Your task to perform on an android device: turn on bluetooth scan Image 0: 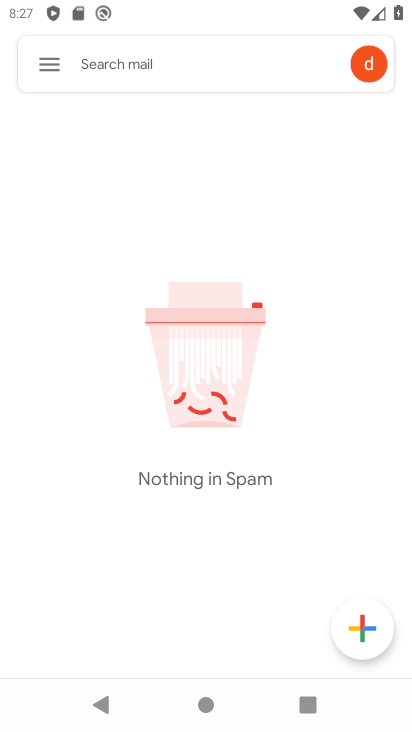
Step 0: press home button
Your task to perform on an android device: turn on bluetooth scan Image 1: 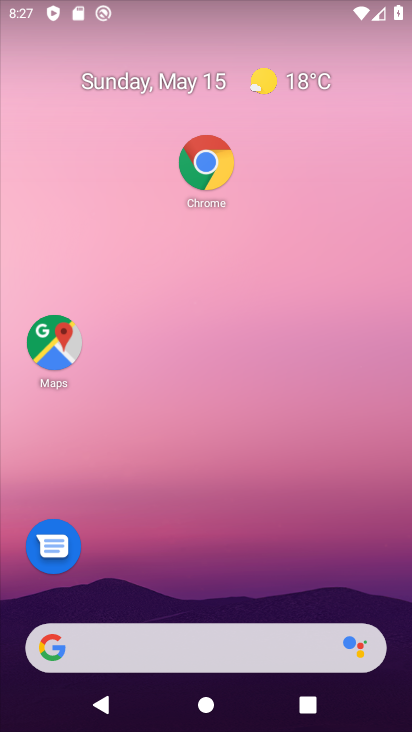
Step 1: click (219, 157)
Your task to perform on an android device: turn on bluetooth scan Image 2: 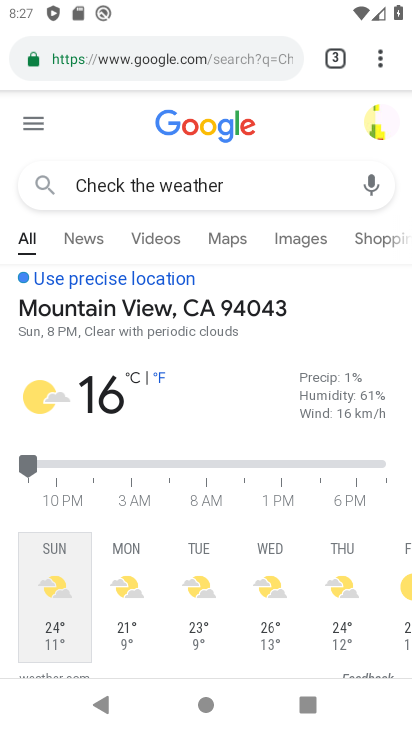
Step 2: click (364, 53)
Your task to perform on an android device: turn on bluetooth scan Image 3: 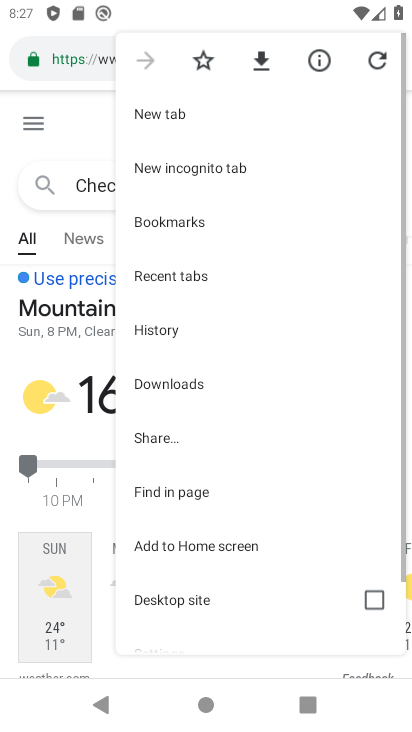
Step 3: press home button
Your task to perform on an android device: turn on bluetooth scan Image 4: 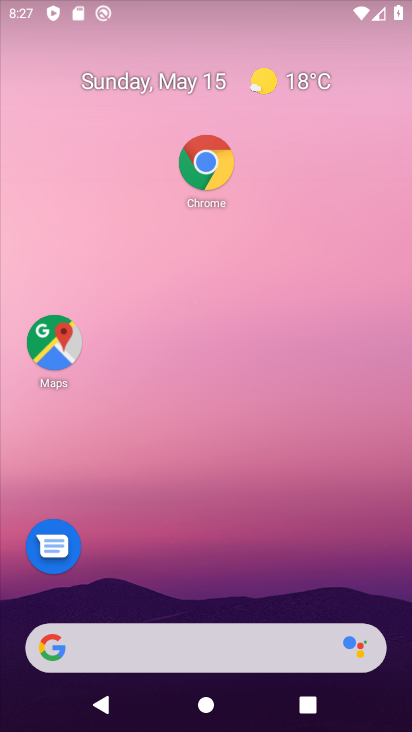
Step 4: drag from (237, 481) to (247, 155)
Your task to perform on an android device: turn on bluetooth scan Image 5: 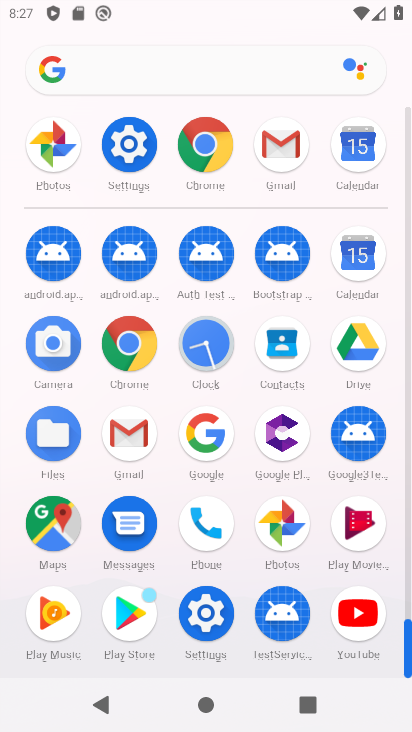
Step 5: click (124, 136)
Your task to perform on an android device: turn on bluetooth scan Image 6: 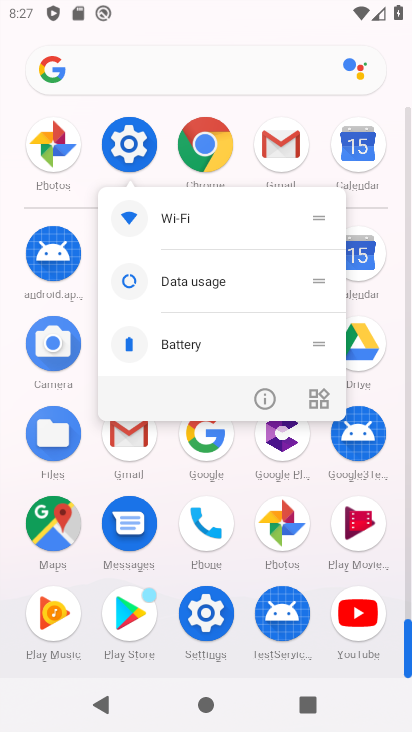
Step 6: click (132, 147)
Your task to perform on an android device: turn on bluetooth scan Image 7: 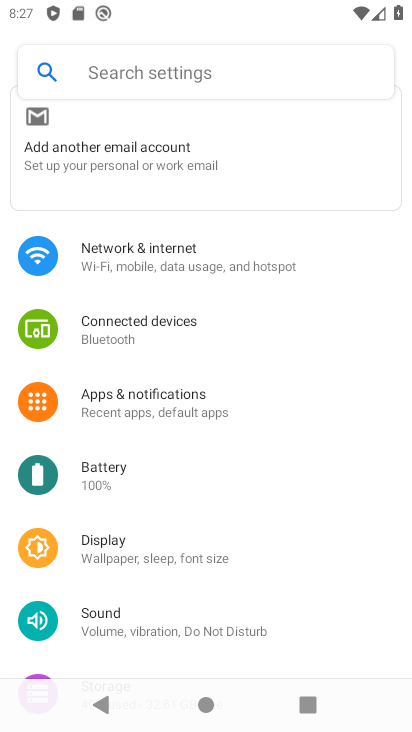
Step 7: click (239, 76)
Your task to perform on an android device: turn on bluetooth scan Image 8: 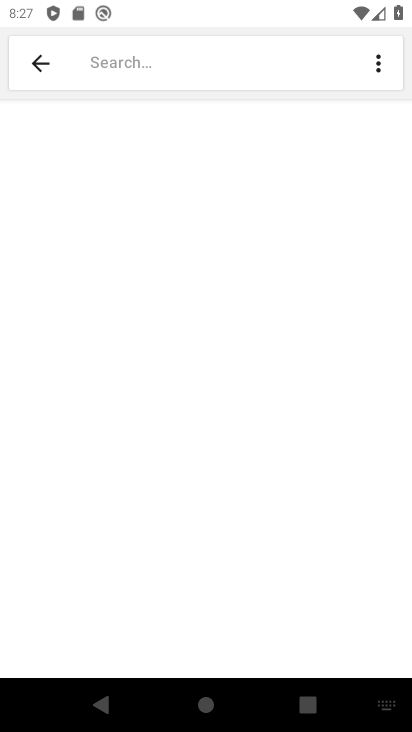
Step 8: type "bluetooth scan"
Your task to perform on an android device: turn on bluetooth scan Image 9: 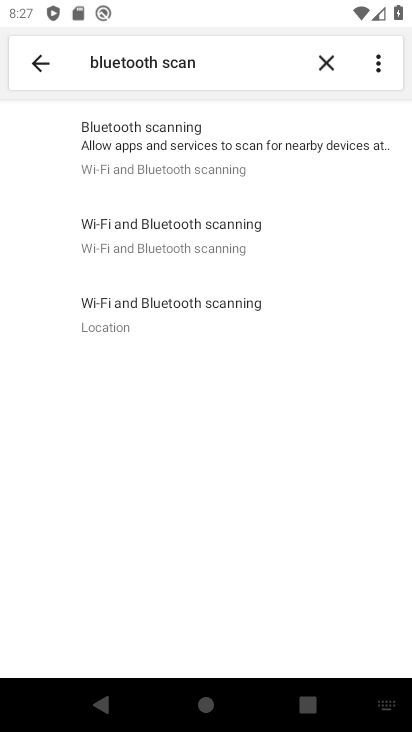
Step 9: click (303, 141)
Your task to perform on an android device: turn on bluetooth scan Image 10: 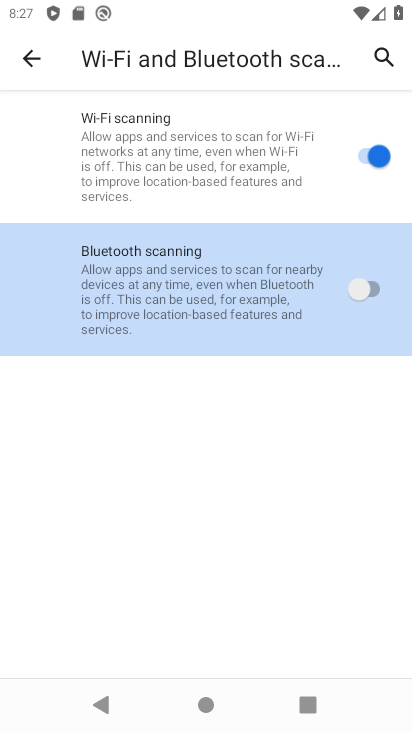
Step 10: click (362, 286)
Your task to perform on an android device: turn on bluetooth scan Image 11: 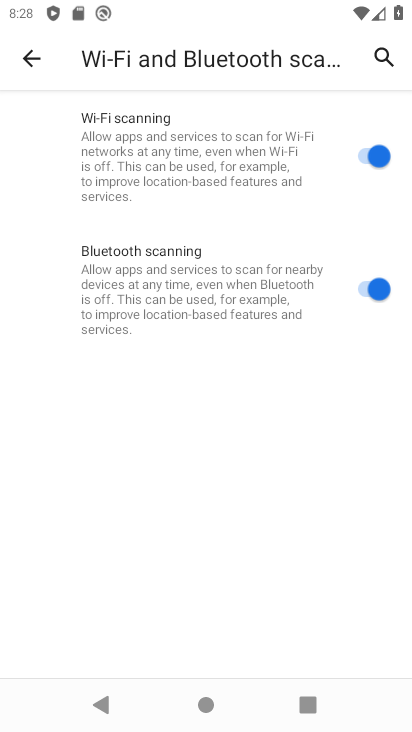
Step 11: task complete